Your task to perform on an android device: open app "Messages" (install if not already installed), go to login, and select forgot password Image 0: 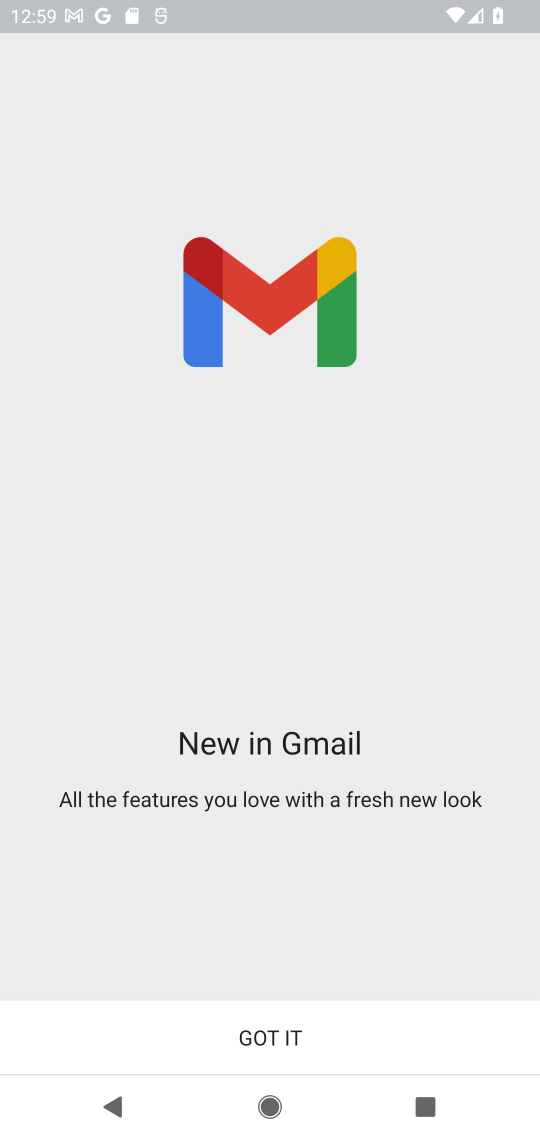
Step 0: press home button
Your task to perform on an android device: open app "Messages" (install if not already installed), go to login, and select forgot password Image 1: 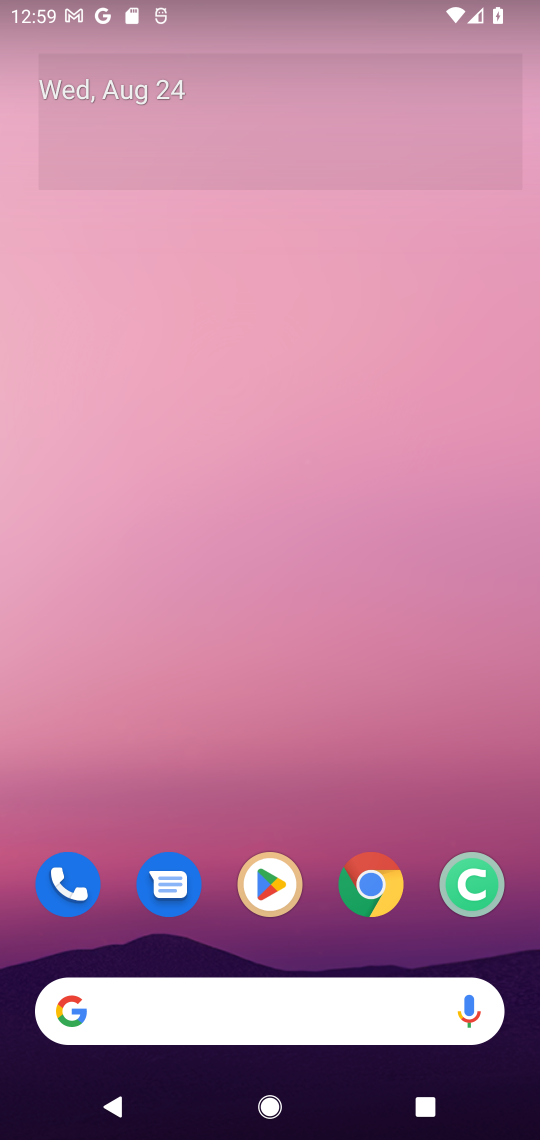
Step 1: drag from (236, 1044) to (298, 140)
Your task to perform on an android device: open app "Messages" (install if not already installed), go to login, and select forgot password Image 2: 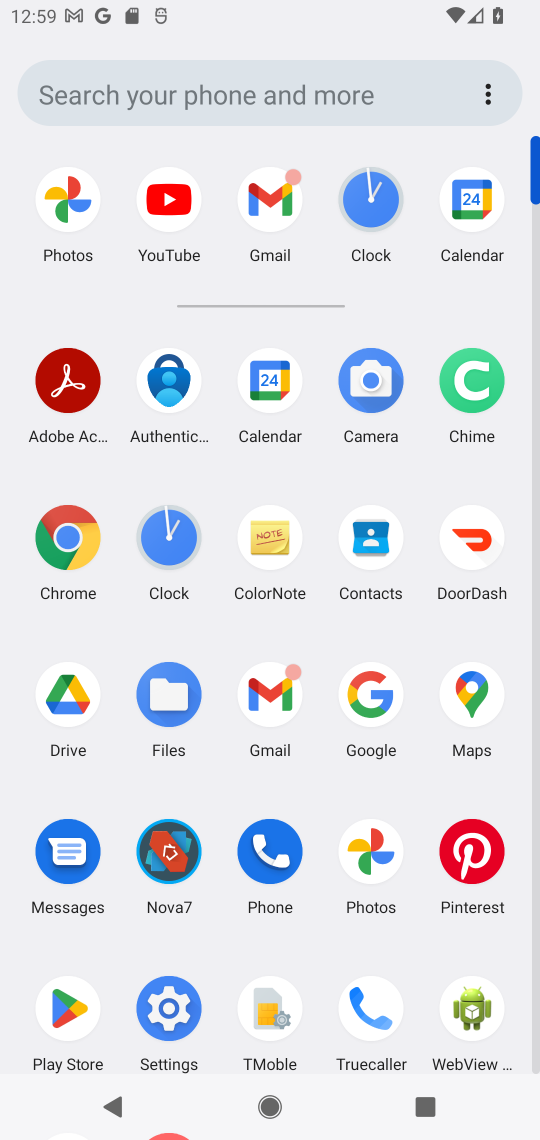
Step 2: click (72, 1014)
Your task to perform on an android device: open app "Messages" (install if not already installed), go to login, and select forgot password Image 3: 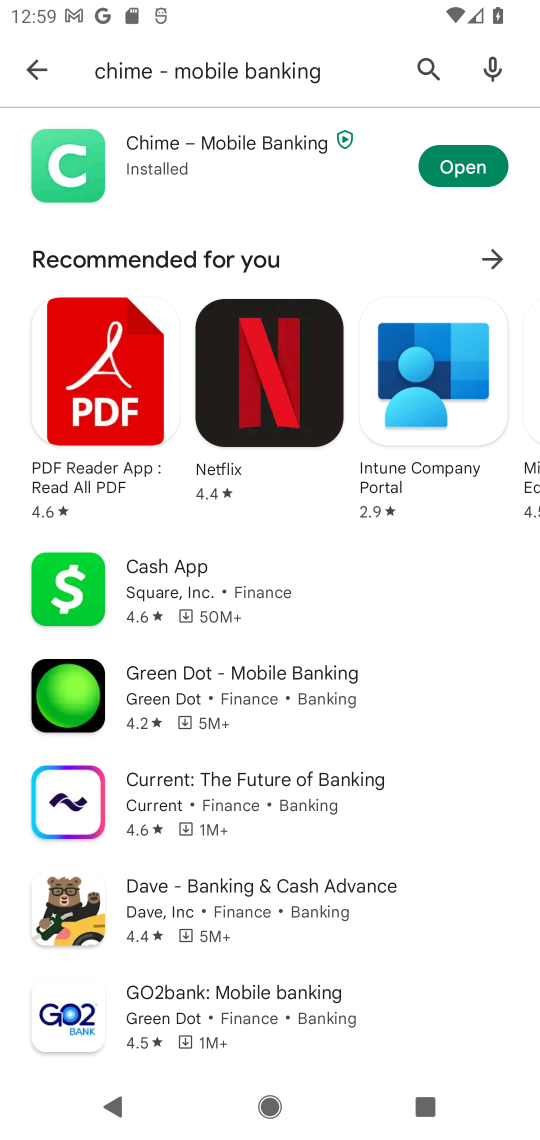
Step 3: press back button
Your task to perform on an android device: open app "Messages" (install if not already installed), go to login, and select forgot password Image 4: 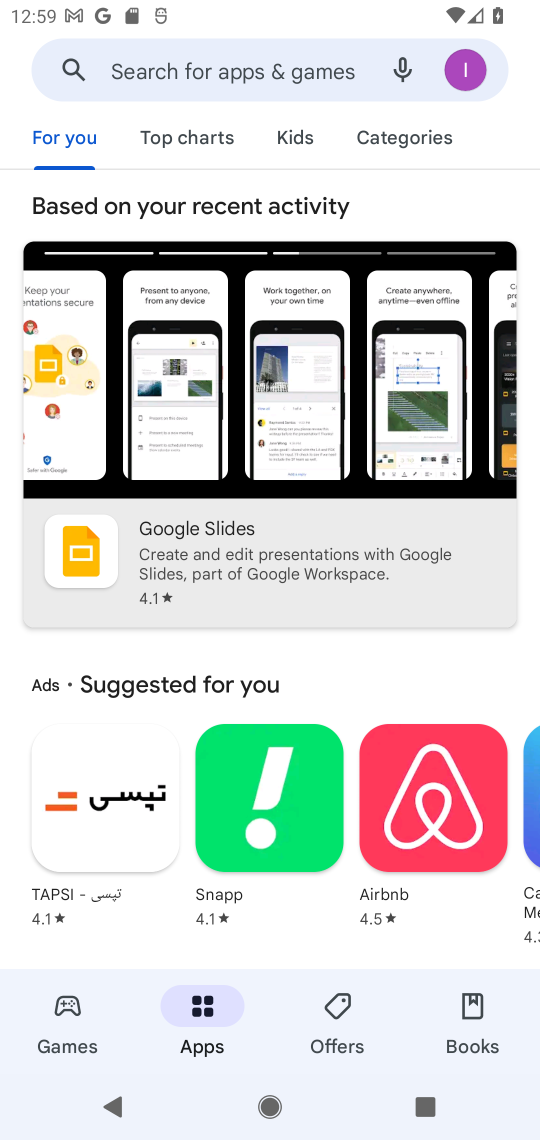
Step 4: click (244, 78)
Your task to perform on an android device: open app "Messages" (install if not already installed), go to login, and select forgot password Image 5: 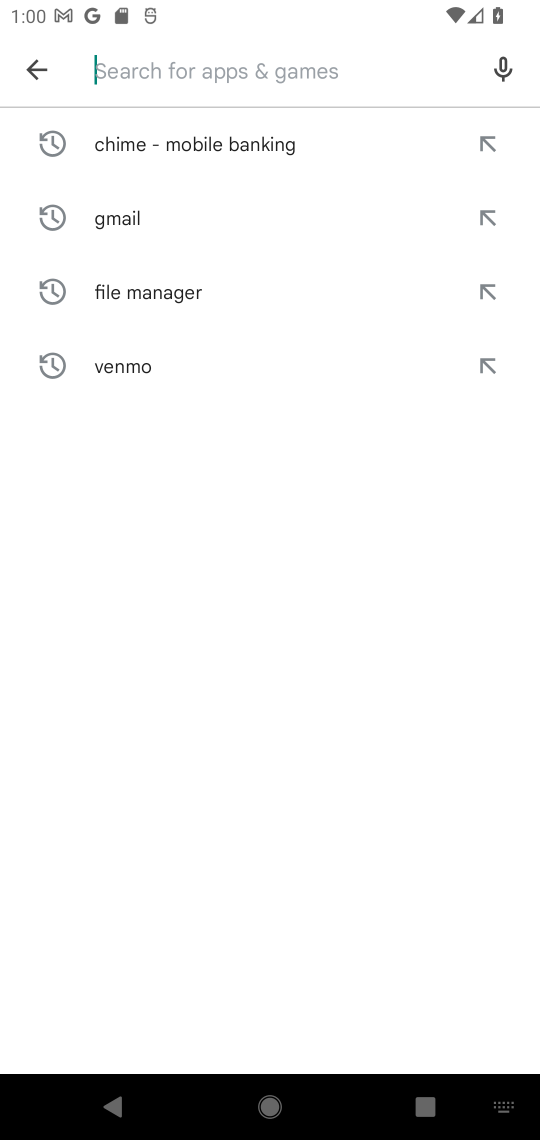
Step 5: type "Messages"
Your task to perform on an android device: open app "Messages" (install if not already installed), go to login, and select forgot password Image 6: 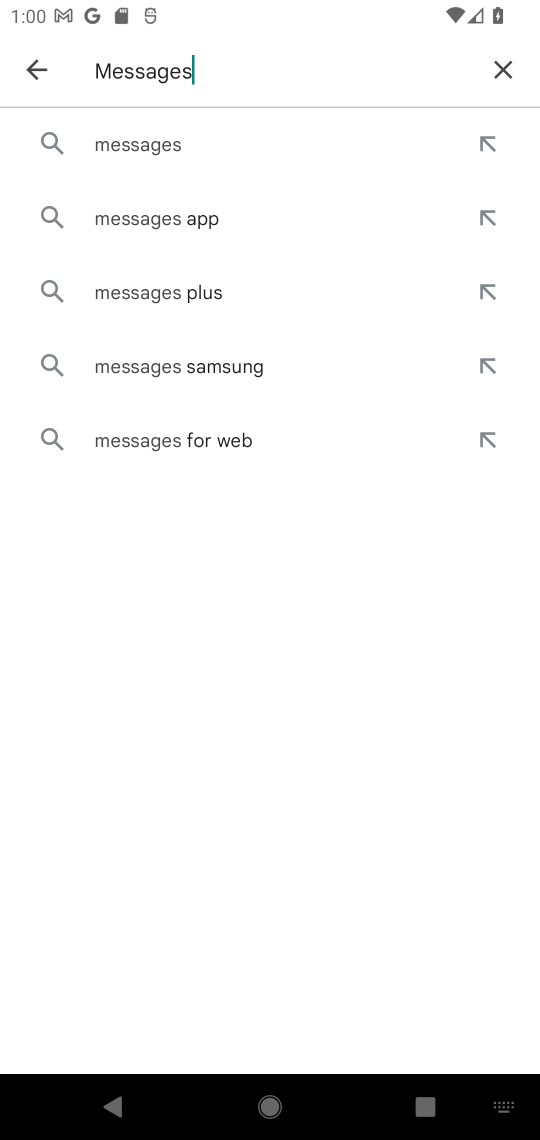
Step 6: click (142, 133)
Your task to perform on an android device: open app "Messages" (install if not already installed), go to login, and select forgot password Image 7: 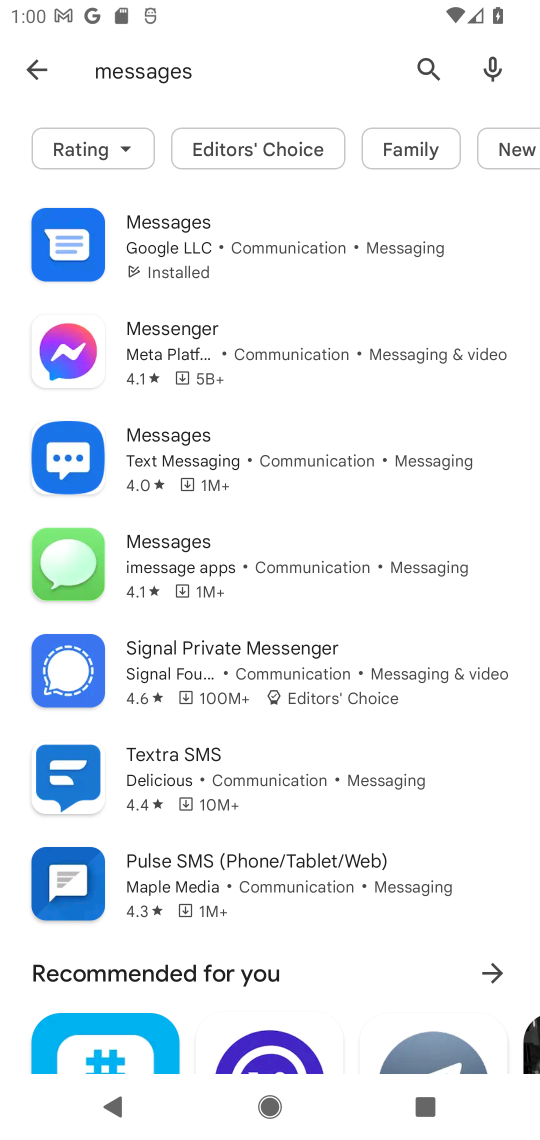
Step 7: click (149, 228)
Your task to perform on an android device: open app "Messages" (install if not already installed), go to login, and select forgot password Image 8: 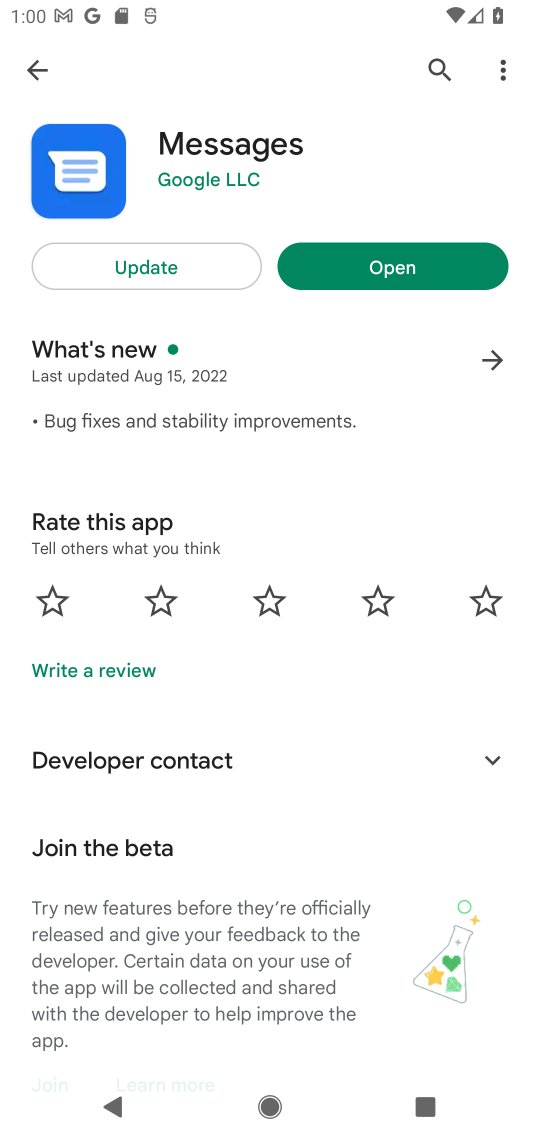
Step 8: click (385, 259)
Your task to perform on an android device: open app "Messages" (install if not already installed), go to login, and select forgot password Image 9: 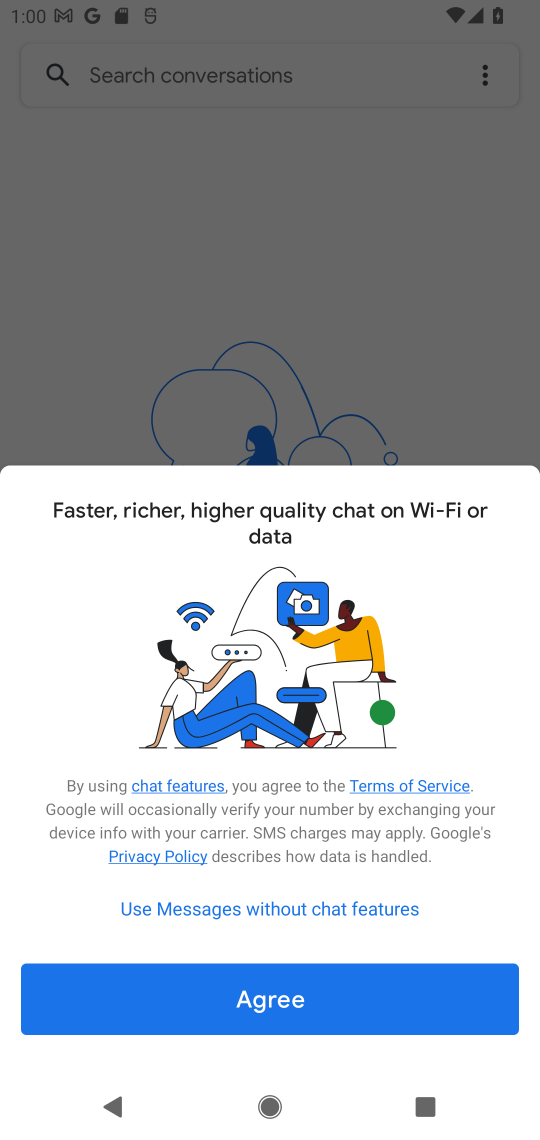
Step 9: click (250, 981)
Your task to perform on an android device: open app "Messages" (install if not already installed), go to login, and select forgot password Image 10: 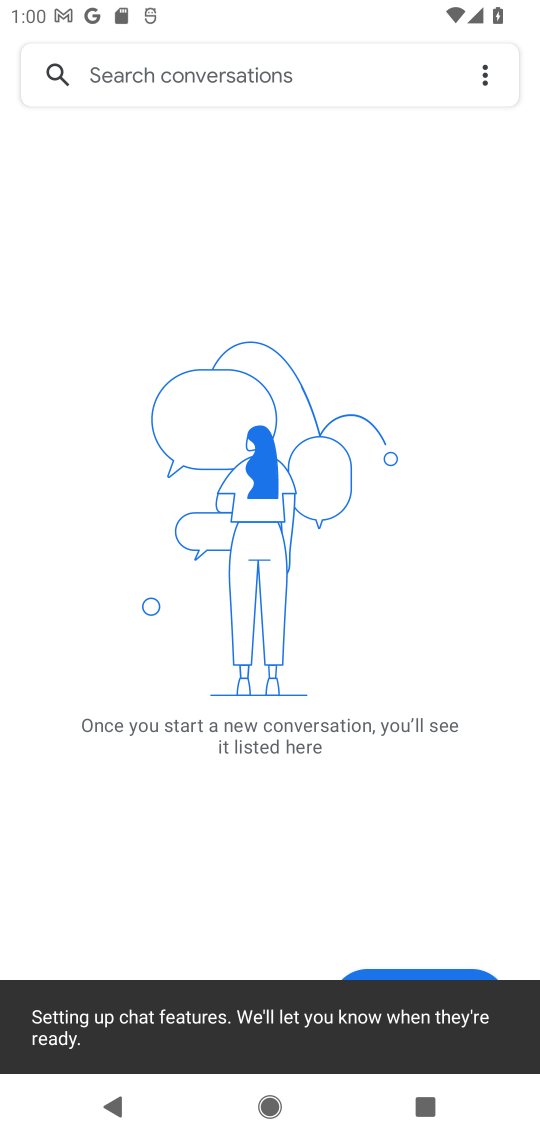
Step 10: click (487, 65)
Your task to perform on an android device: open app "Messages" (install if not already installed), go to login, and select forgot password Image 11: 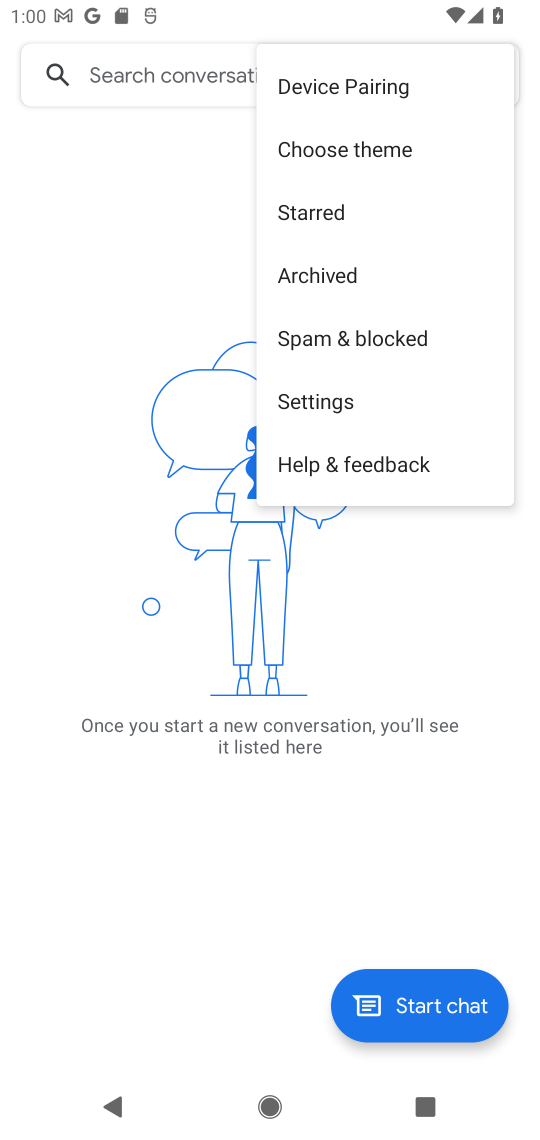
Step 11: click (353, 395)
Your task to perform on an android device: open app "Messages" (install if not already installed), go to login, and select forgot password Image 12: 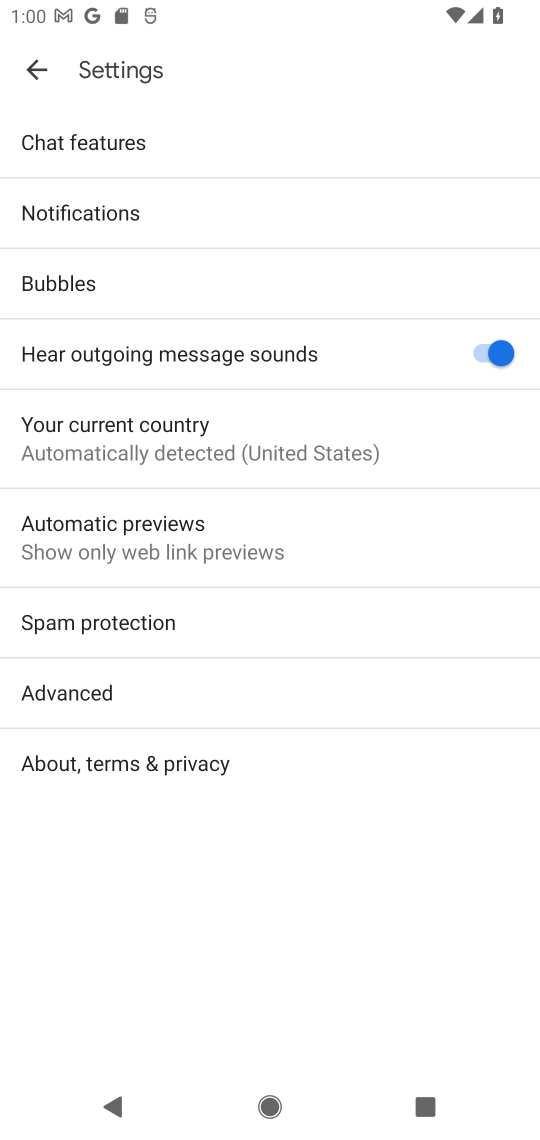
Step 12: click (131, 770)
Your task to perform on an android device: open app "Messages" (install if not already installed), go to login, and select forgot password Image 13: 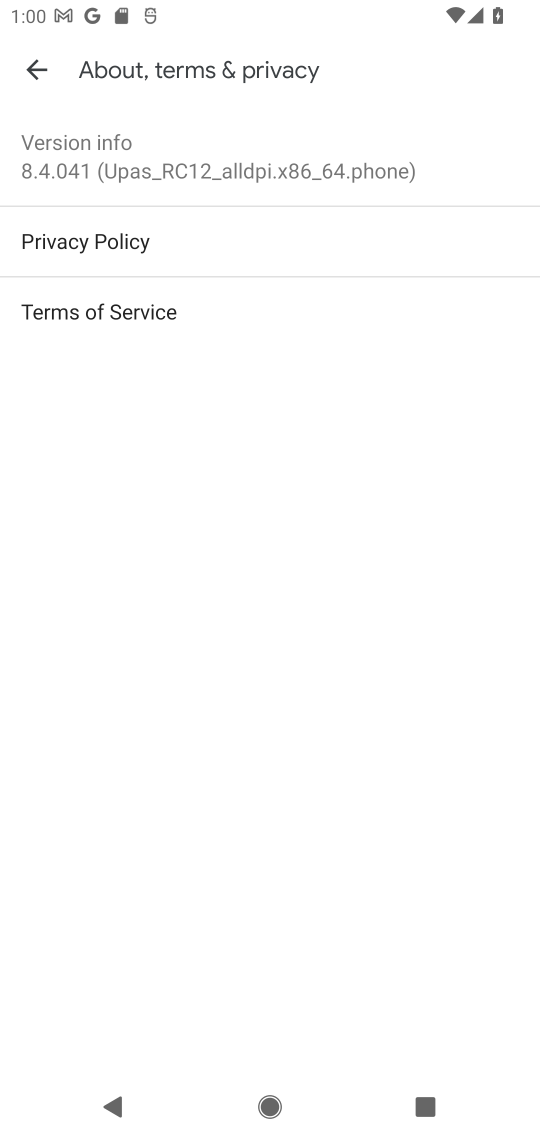
Step 13: task complete